Your task to perform on an android device: set default search engine in the chrome app Image 0: 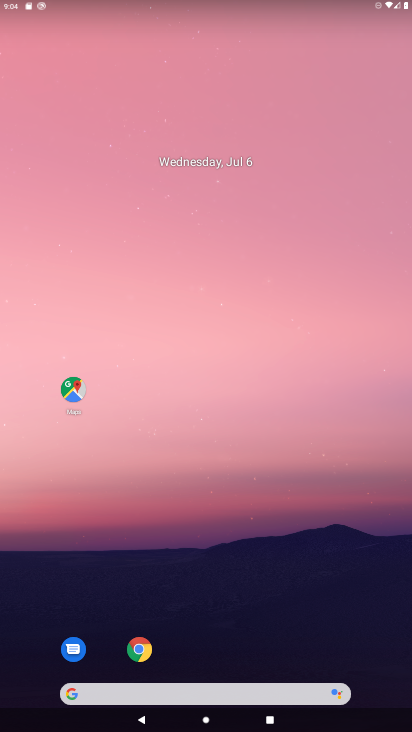
Step 0: click (271, 304)
Your task to perform on an android device: set default search engine in the chrome app Image 1: 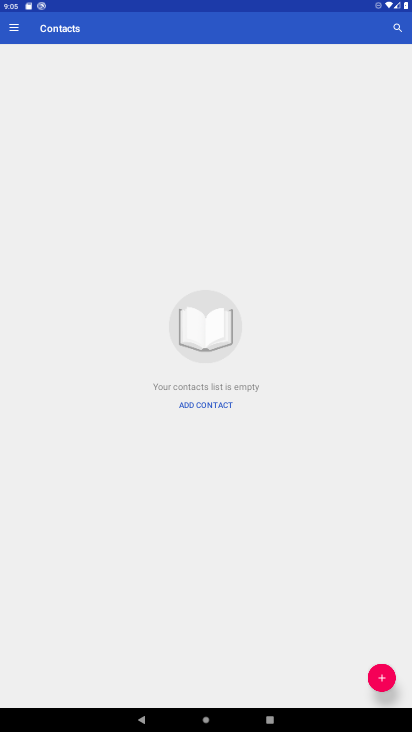
Step 1: press back button
Your task to perform on an android device: set default search engine in the chrome app Image 2: 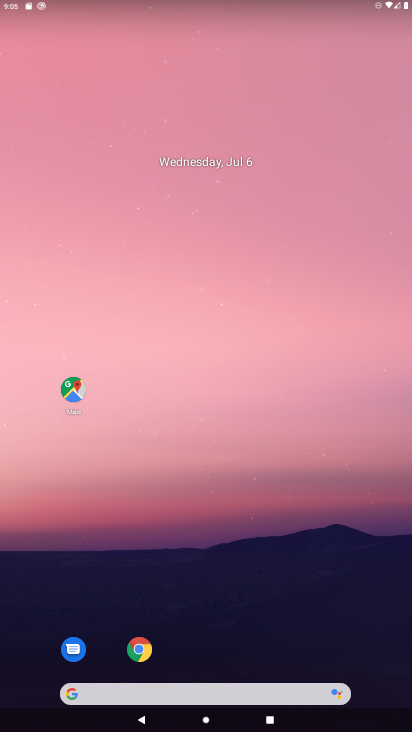
Step 2: drag from (244, 590) to (177, 334)
Your task to perform on an android device: set default search engine in the chrome app Image 3: 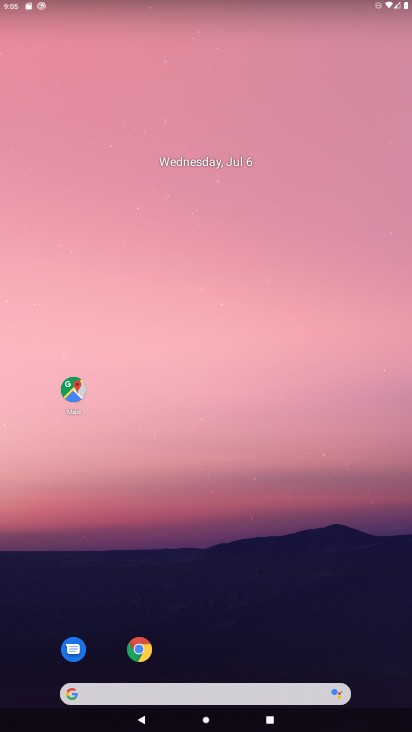
Step 3: drag from (259, 698) to (211, 229)
Your task to perform on an android device: set default search engine in the chrome app Image 4: 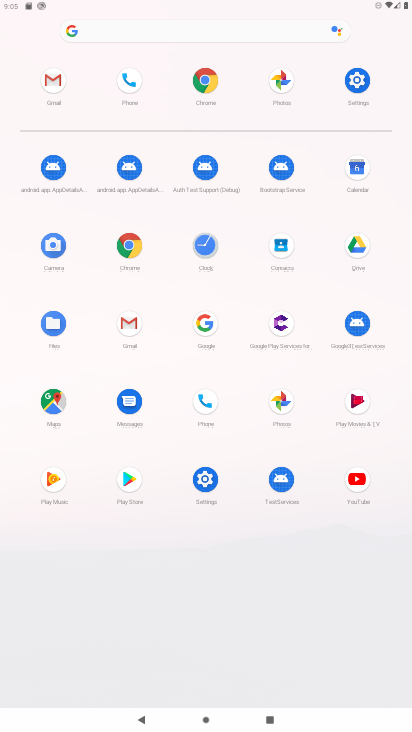
Step 4: click (136, 236)
Your task to perform on an android device: set default search engine in the chrome app Image 5: 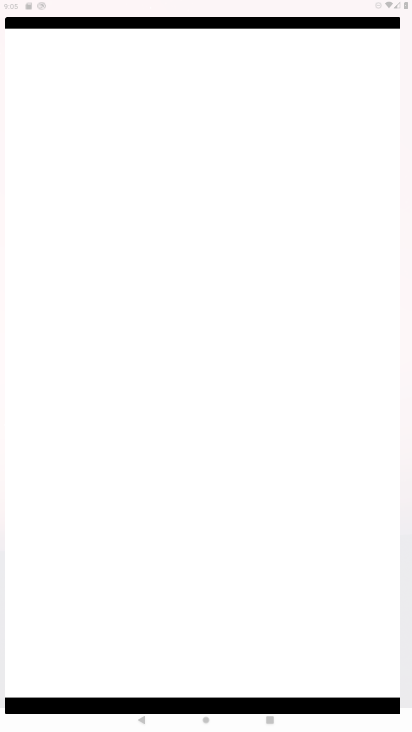
Step 5: click (141, 245)
Your task to perform on an android device: set default search engine in the chrome app Image 6: 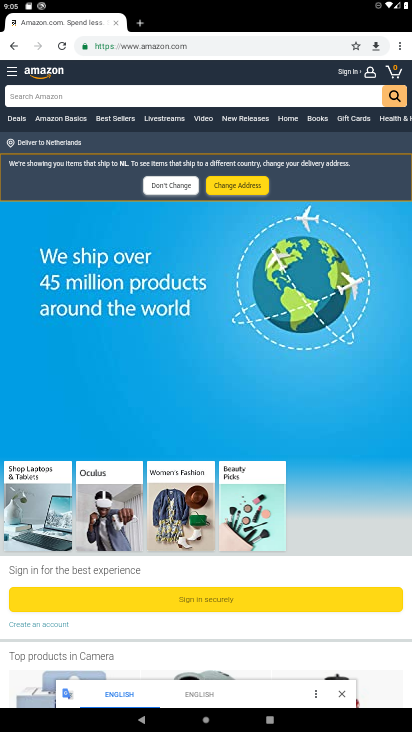
Step 6: press back button
Your task to perform on an android device: set default search engine in the chrome app Image 7: 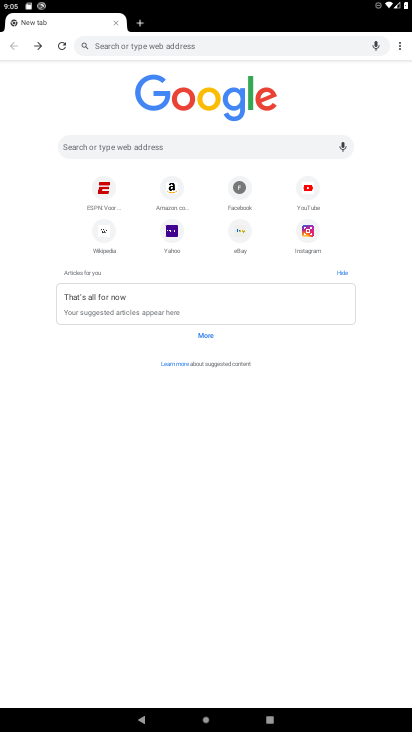
Step 7: drag from (401, 41) to (310, 210)
Your task to perform on an android device: set default search engine in the chrome app Image 8: 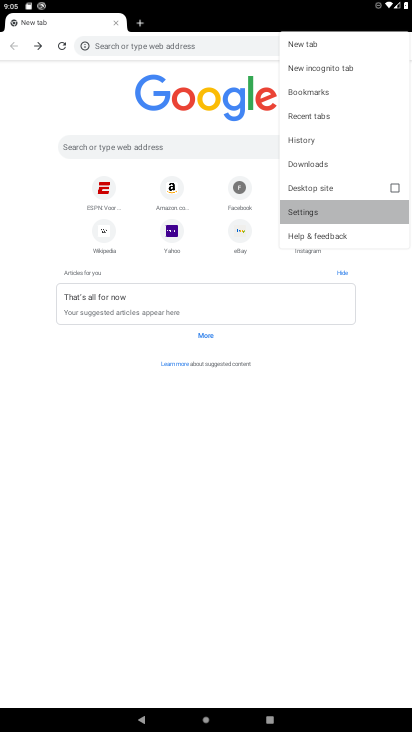
Step 8: click (309, 211)
Your task to perform on an android device: set default search engine in the chrome app Image 9: 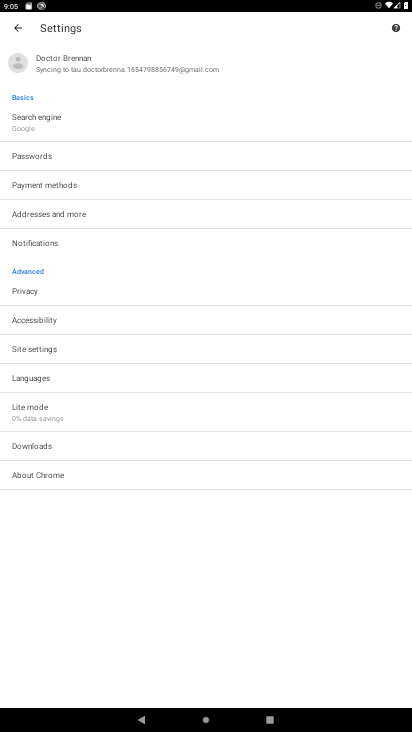
Step 9: click (22, 123)
Your task to perform on an android device: set default search engine in the chrome app Image 10: 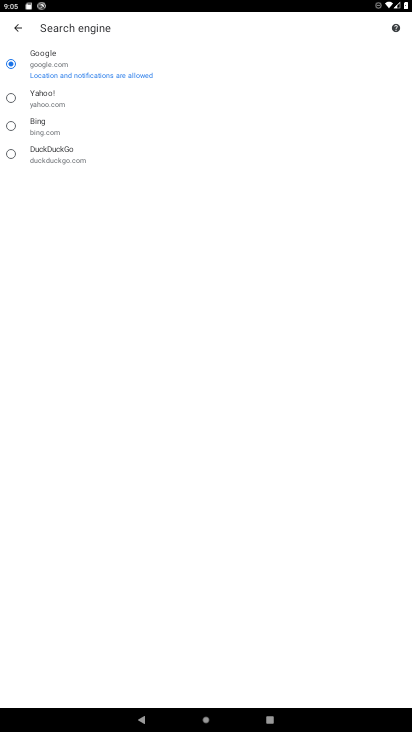
Step 10: click (6, 100)
Your task to perform on an android device: set default search engine in the chrome app Image 11: 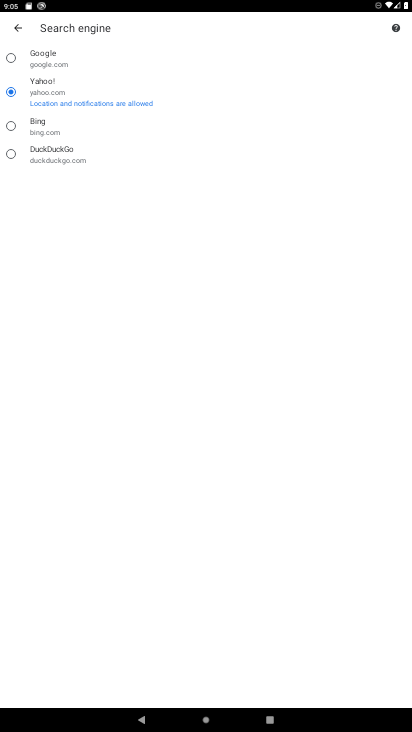
Step 11: task complete